Your task to perform on an android device: set an alarm Image 0: 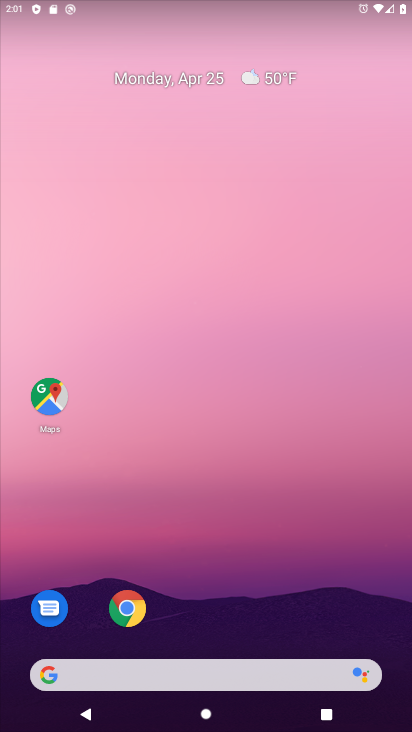
Step 0: drag from (209, 556) to (211, 235)
Your task to perform on an android device: set an alarm Image 1: 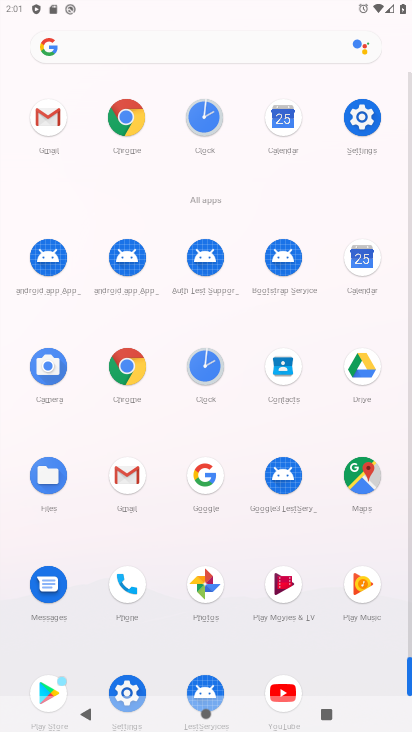
Step 1: click (210, 126)
Your task to perform on an android device: set an alarm Image 2: 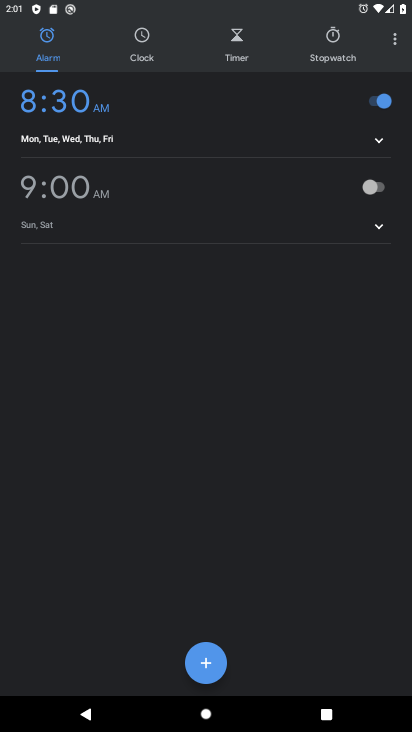
Step 2: click (378, 186)
Your task to perform on an android device: set an alarm Image 3: 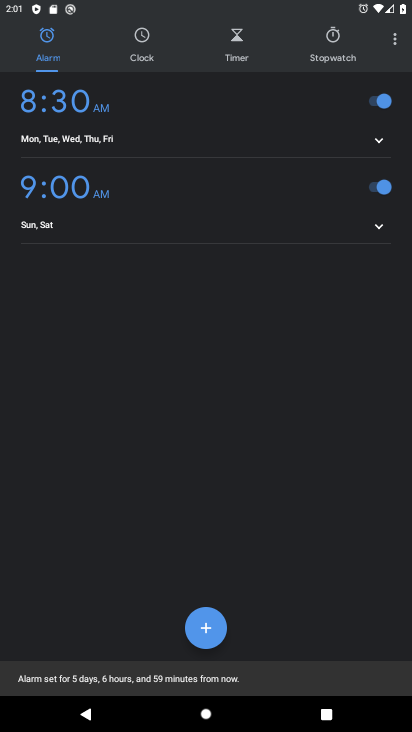
Step 3: task complete